Your task to perform on an android device: turn off translation in the chrome app Image 0: 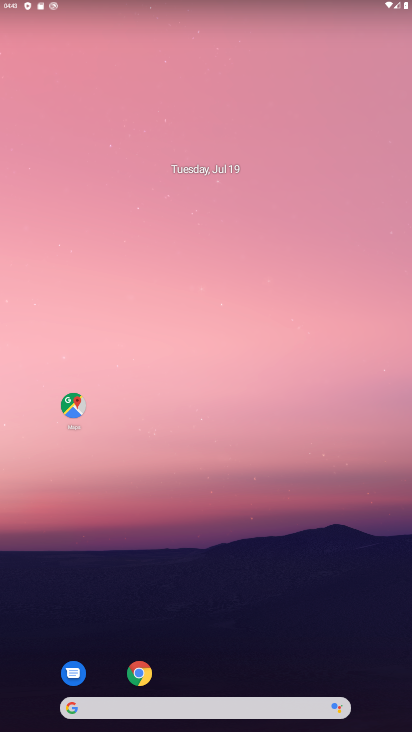
Step 0: drag from (239, 691) to (214, 70)
Your task to perform on an android device: turn off translation in the chrome app Image 1: 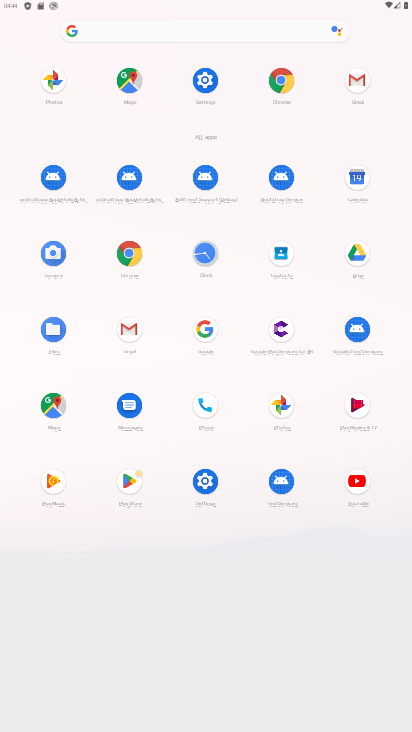
Step 1: click (129, 238)
Your task to perform on an android device: turn off translation in the chrome app Image 2: 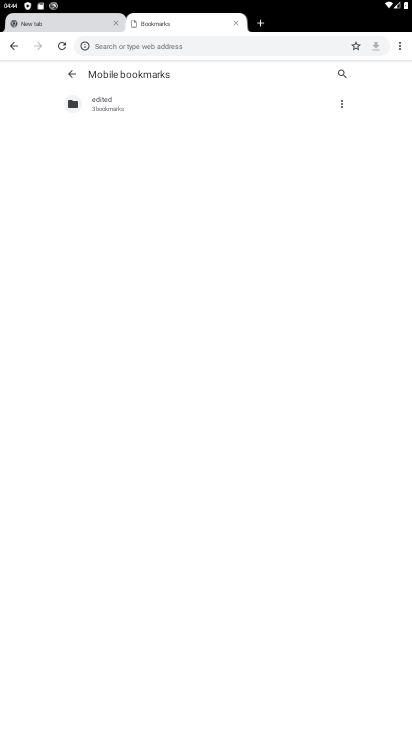
Step 2: click (400, 43)
Your task to perform on an android device: turn off translation in the chrome app Image 3: 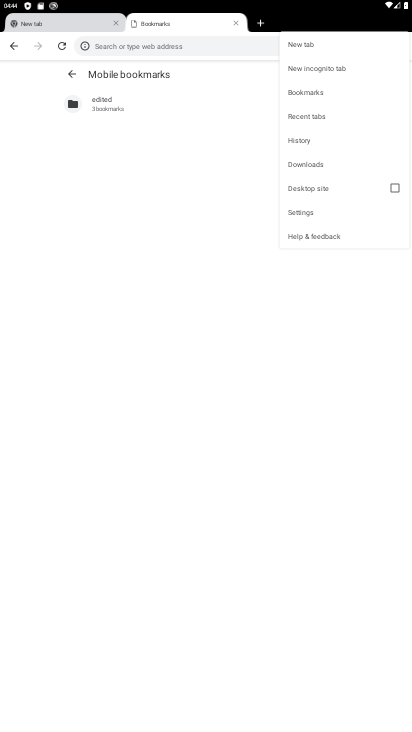
Step 3: click (308, 208)
Your task to perform on an android device: turn off translation in the chrome app Image 4: 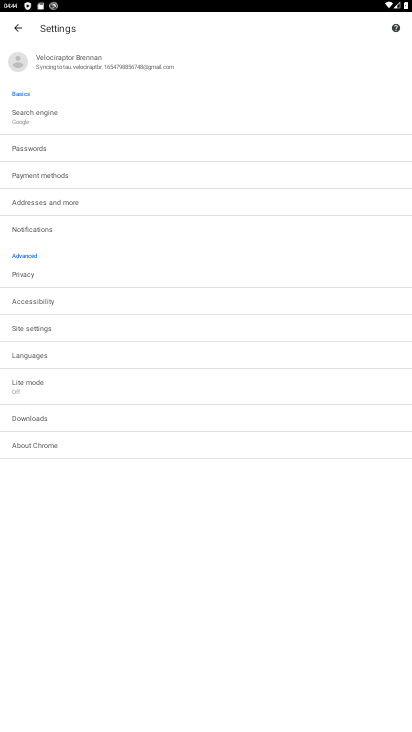
Step 4: click (56, 327)
Your task to perform on an android device: turn off translation in the chrome app Image 5: 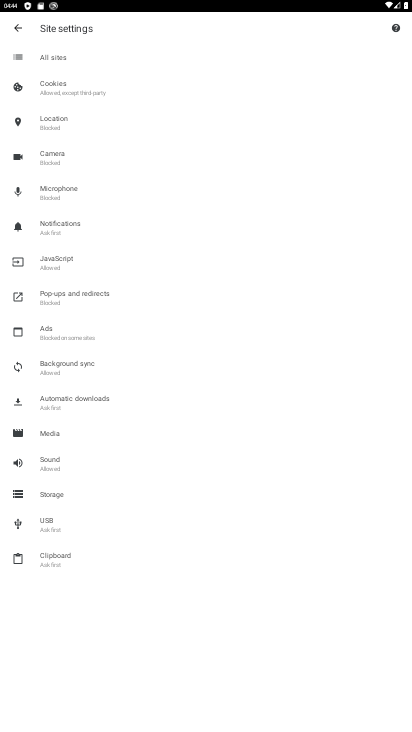
Step 5: click (68, 121)
Your task to perform on an android device: turn off translation in the chrome app Image 6: 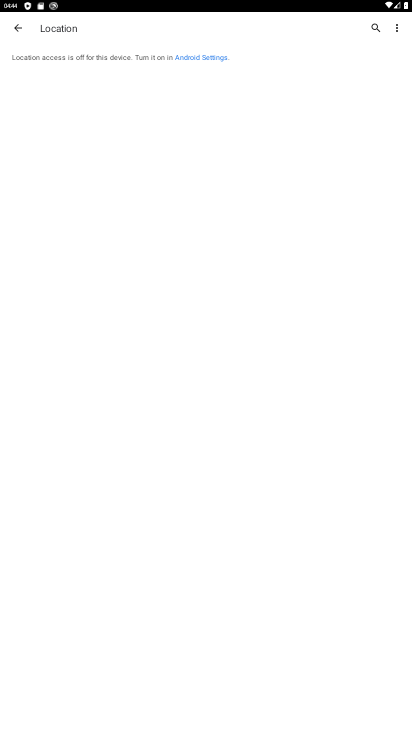
Step 6: click (188, 56)
Your task to perform on an android device: turn off translation in the chrome app Image 7: 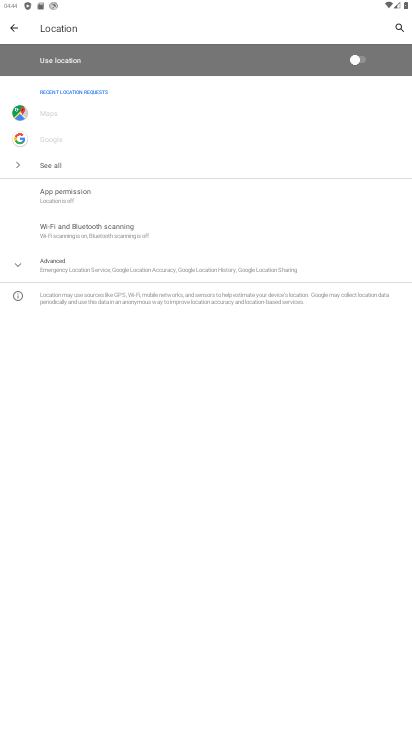
Step 7: task complete